Your task to perform on an android device: check storage Image 0: 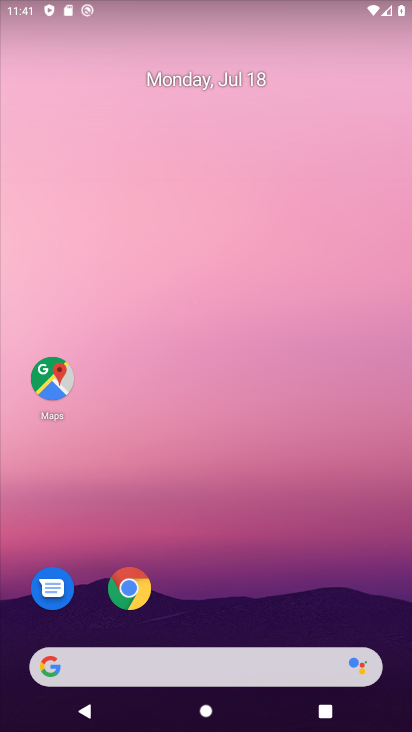
Step 0: drag from (178, 517) to (188, 235)
Your task to perform on an android device: check storage Image 1: 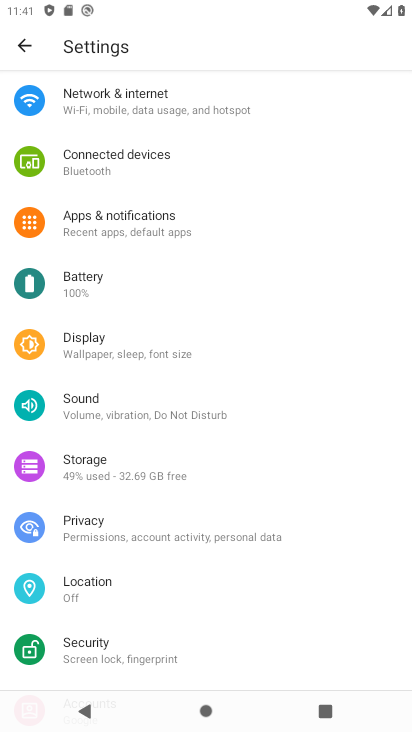
Step 1: click (103, 455)
Your task to perform on an android device: check storage Image 2: 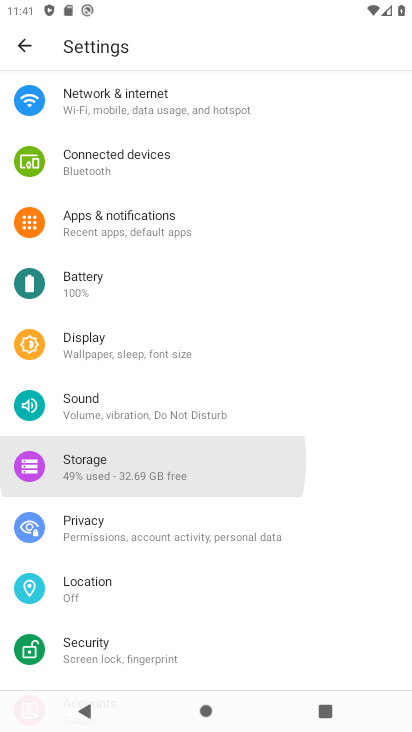
Step 2: click (103, 455)
Your task to perform on an android device: check storage Image 3: 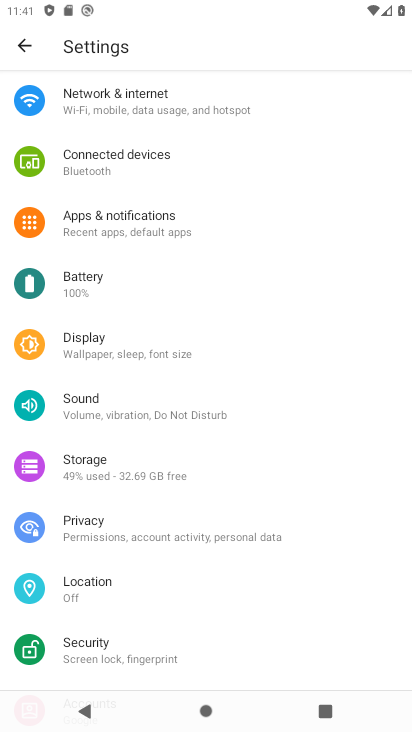
Step 3: click (102, 456)
Your task to perform on an android device: check storage Image 4: 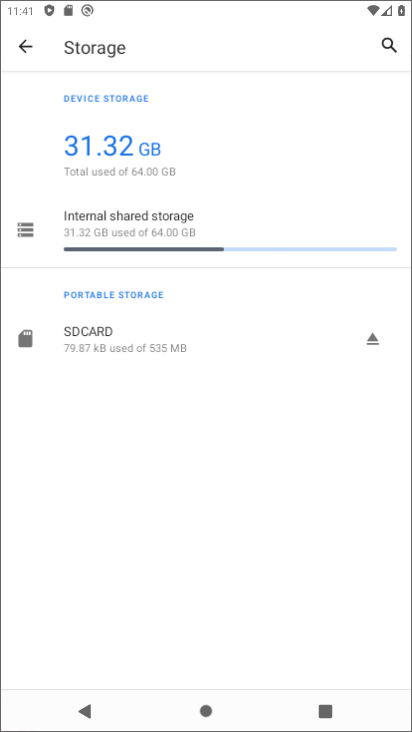
Step 4: click (100, 455)
Your task to perform on an android device: check storage Image 5: 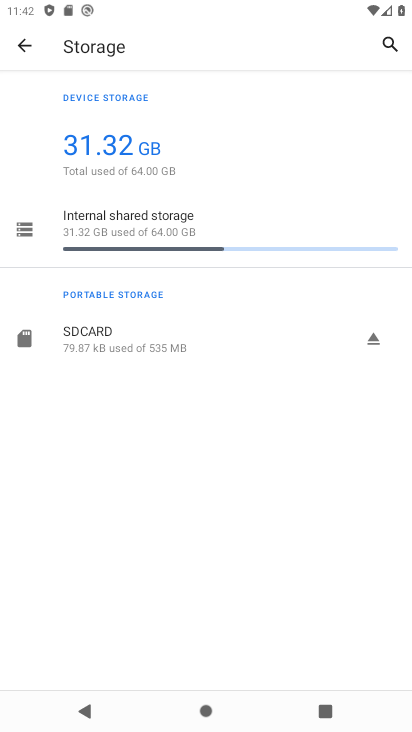
Step 5: task complete